Your task to perform on an android device: Check the news Image 0: 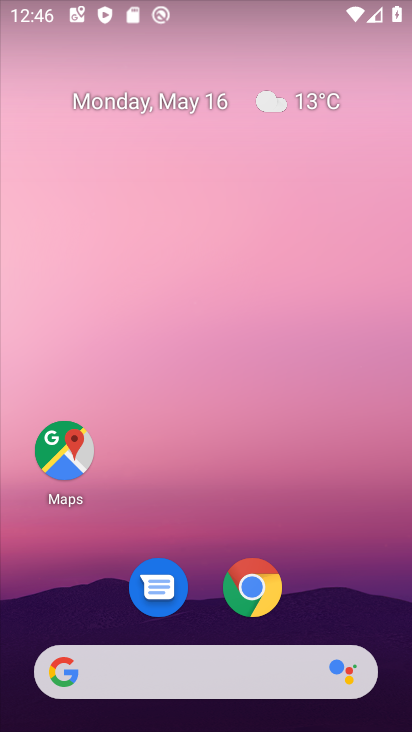
Step 0: drag from (9, 261) to (400, 244)
Your task to perform on an android device: Check the news Image 1: 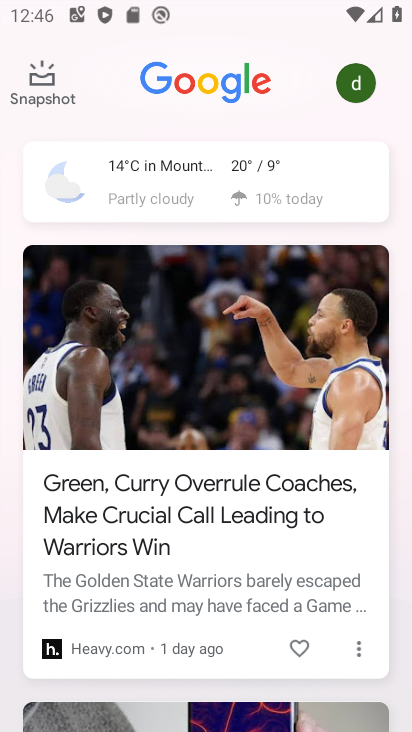
Step 1: task complete